Your task to perform on an android device: Is it going to rain tomorrow? Image 0: 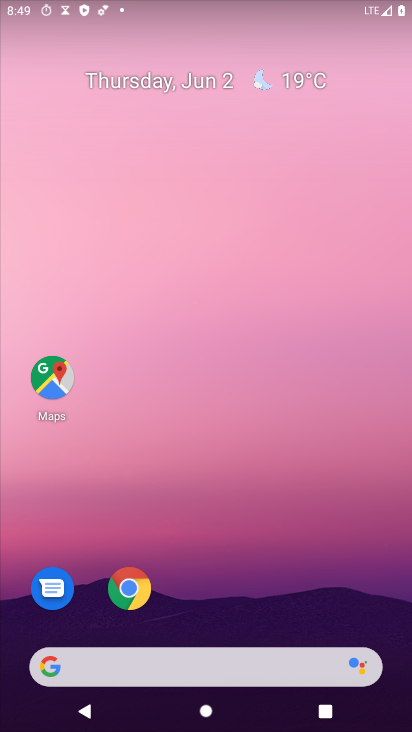
Step 0: click (260, 87)
Your task to perform on an android device: Is it going to rain tomorrow? Image 1: 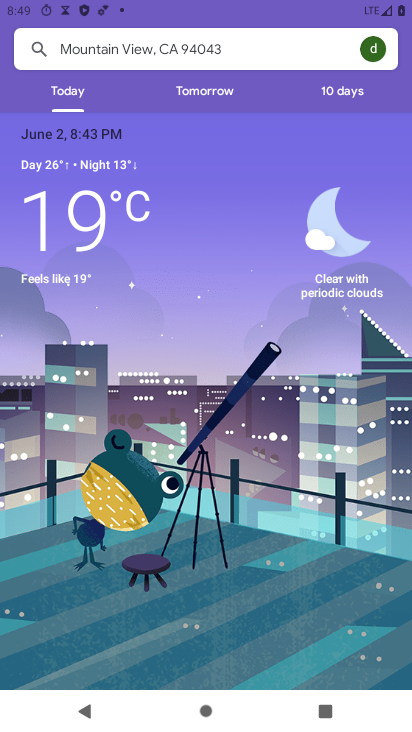
Step 1: click (209, 101)
Your task to perform on an android device: Is it going to rain tomorrow? Image 2: 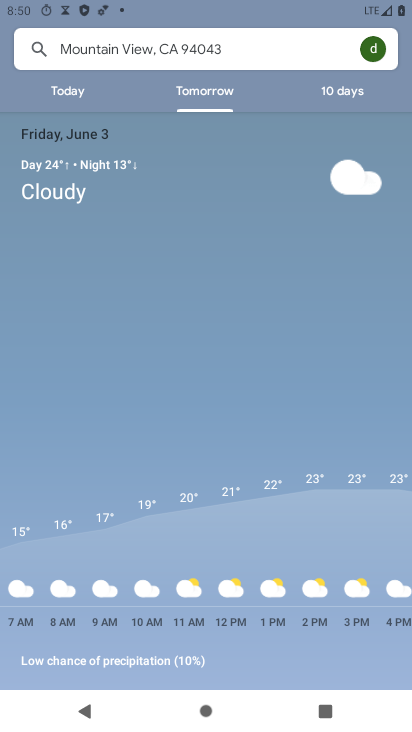
Step 2: task complete